Your task to perform on an android device: see sites visited before in the chrome app Image 0: 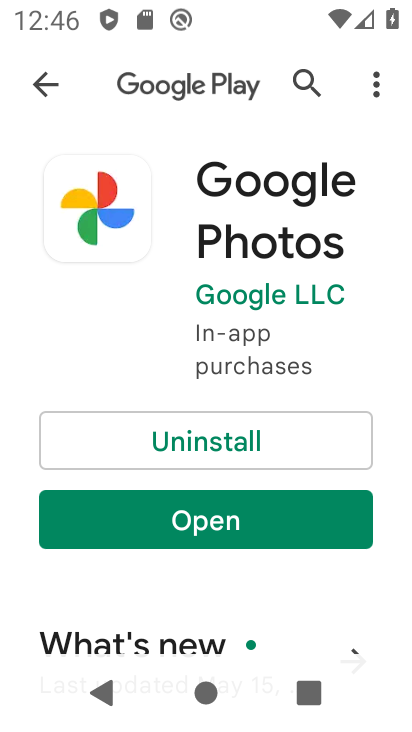
Step 0: press home button
Your task to perform on an android device: see sites visited before in the chrome app Image 1: 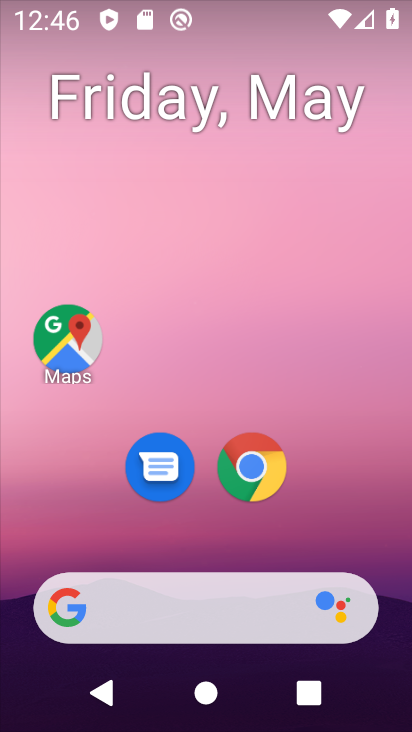
Step 1: click (255, 478)
Your task to perform on an android device: see sites visited before in the chrome app Image 2: 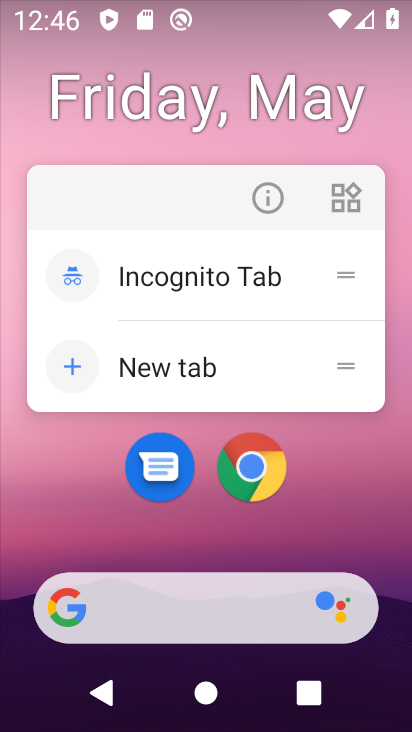
Step 2: click (271, 456)
Your task to perform on an android device: see sites visited before in the chrome app Image 3: 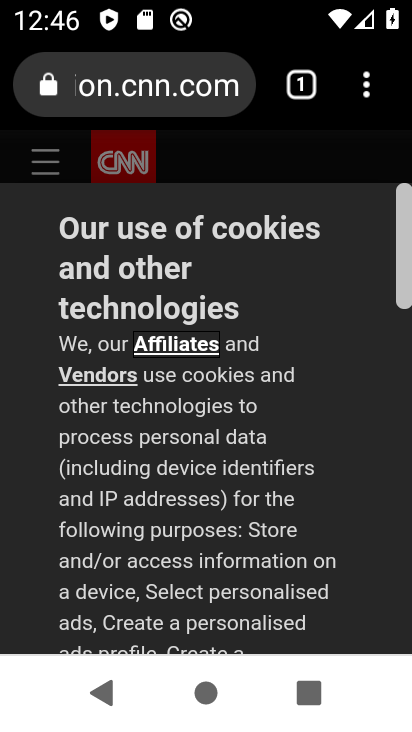
Step 3: task complete